Your task to perform on an android device: Open privacy settings Image 0: 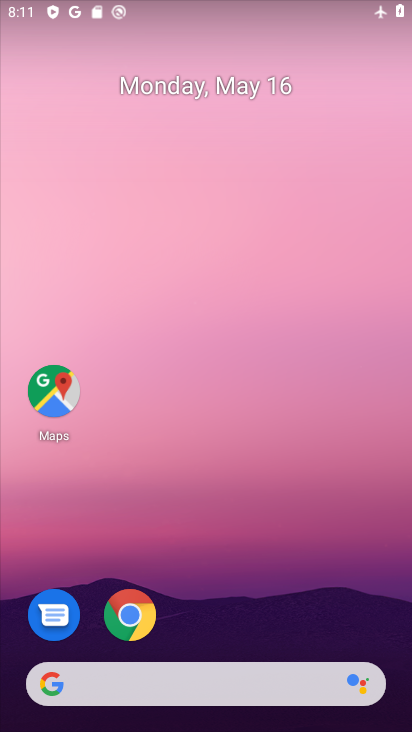
Step 0: drag from (17, 541) to (207, 194)
Your task to perform on an android device: Open privacy settings Image 1: 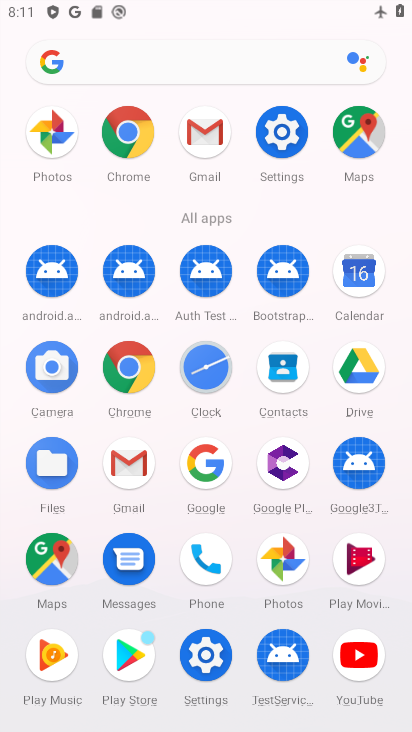
Step 1: click (213, 652)
Your task to perform on an android device: Open privacy settings Image 2: 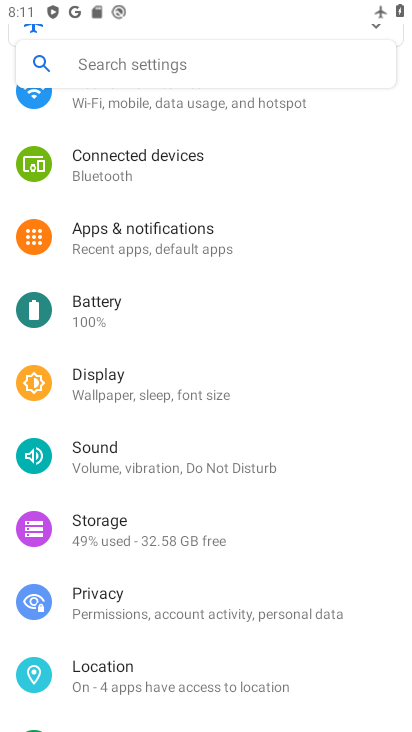
Step 2: click (176, 604)
Your task to perform on an android device: Open privacy settings Image 3: 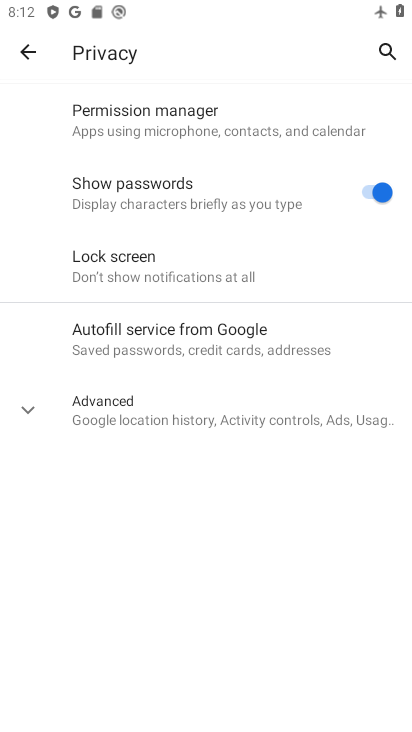
Step 3: task complete